Your task to perform on an android device: What's the weather today? Image 0: 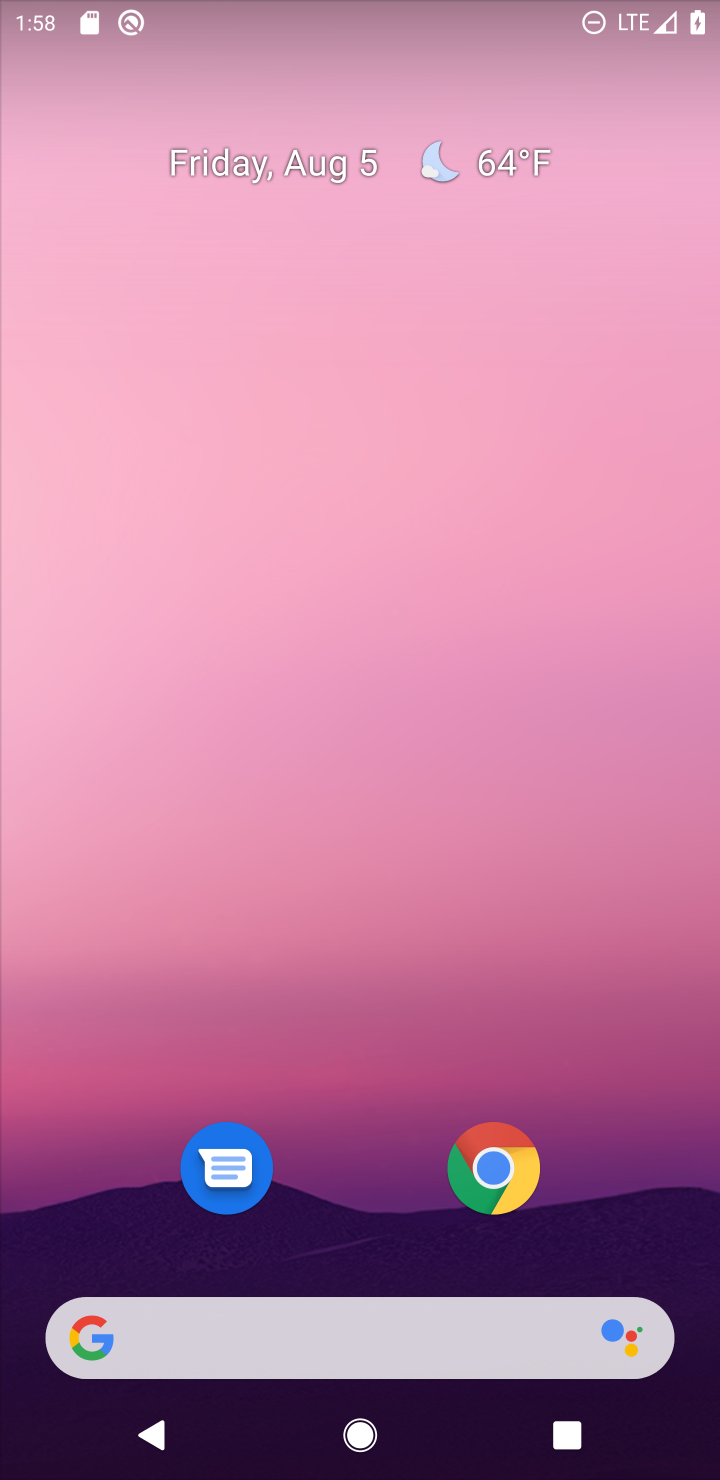
Step 0: drag from (589, 853) to (239, 24)
Your task to perform on an android device: What's the weather today? Image 1: 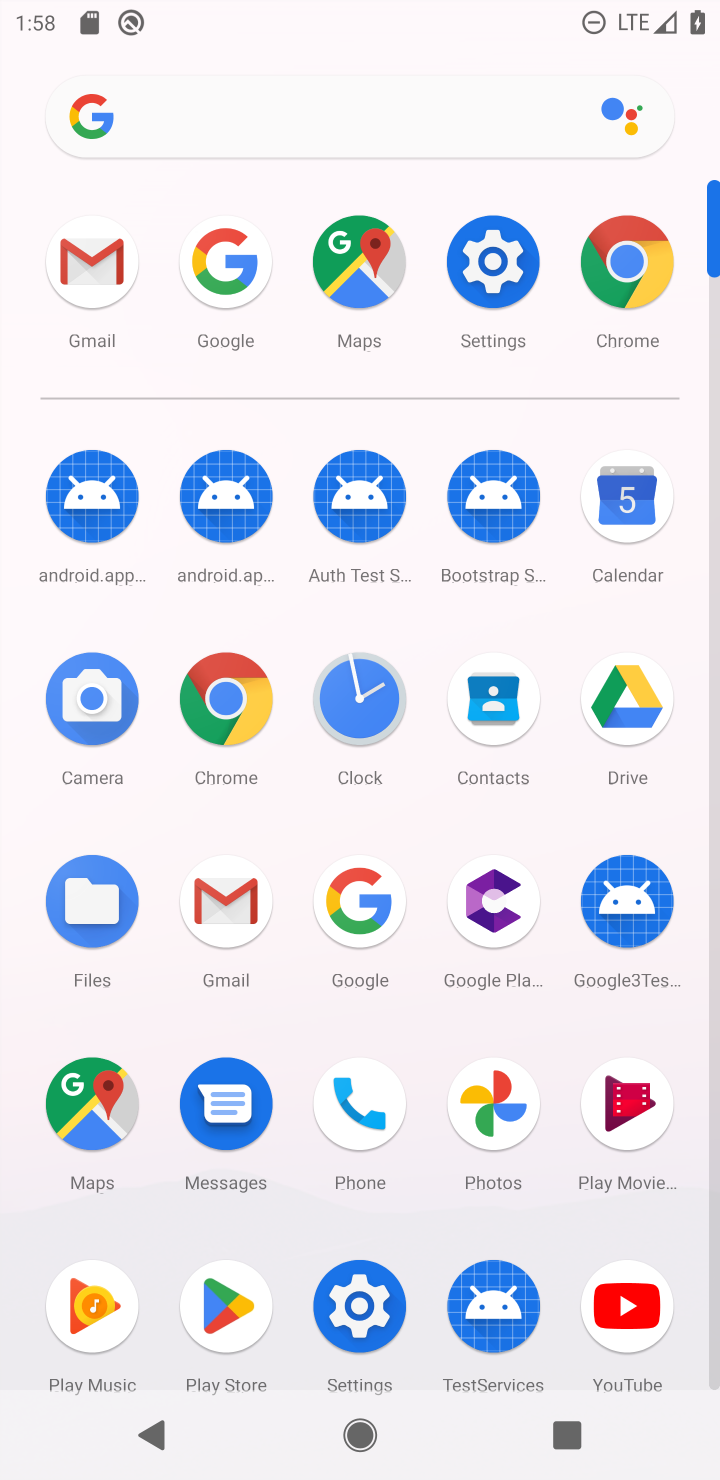
Step 1: click (343, 932)
Your task to perform on an android device: What's the weather today? Image 2: 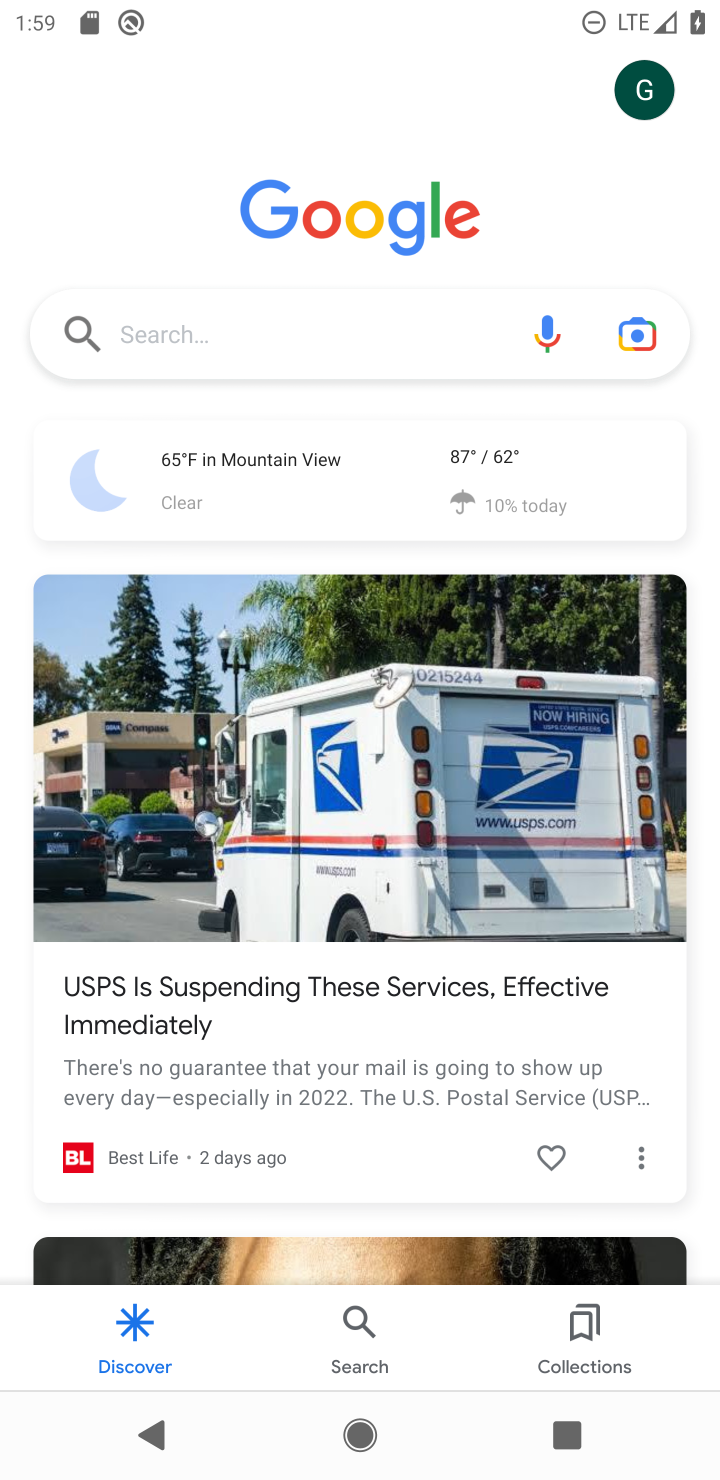
Step 2: click (190, 350)
Your task to perform on an android device: What's the weather today? Image 3: 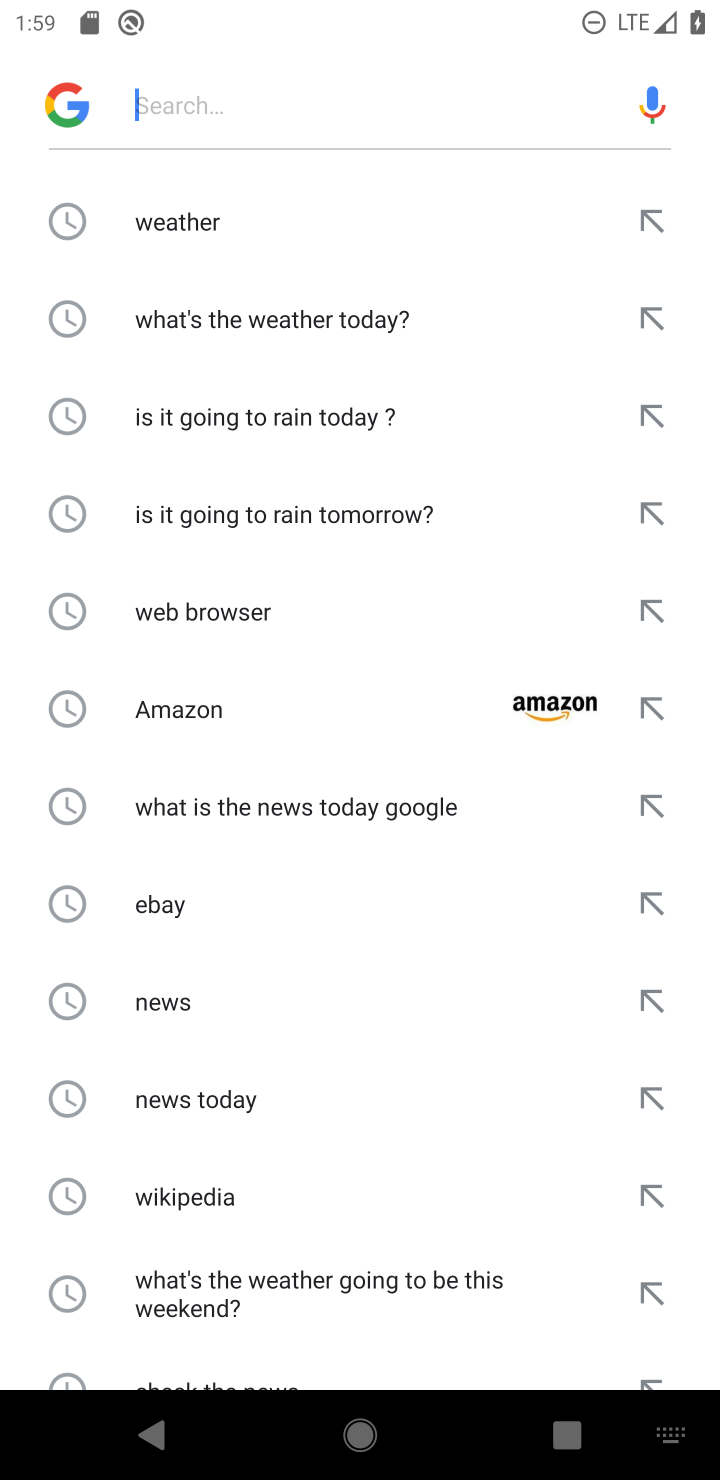
Step 3: click (277, 347)
Your task to perform on an android device: What's the weather today? Image 4: 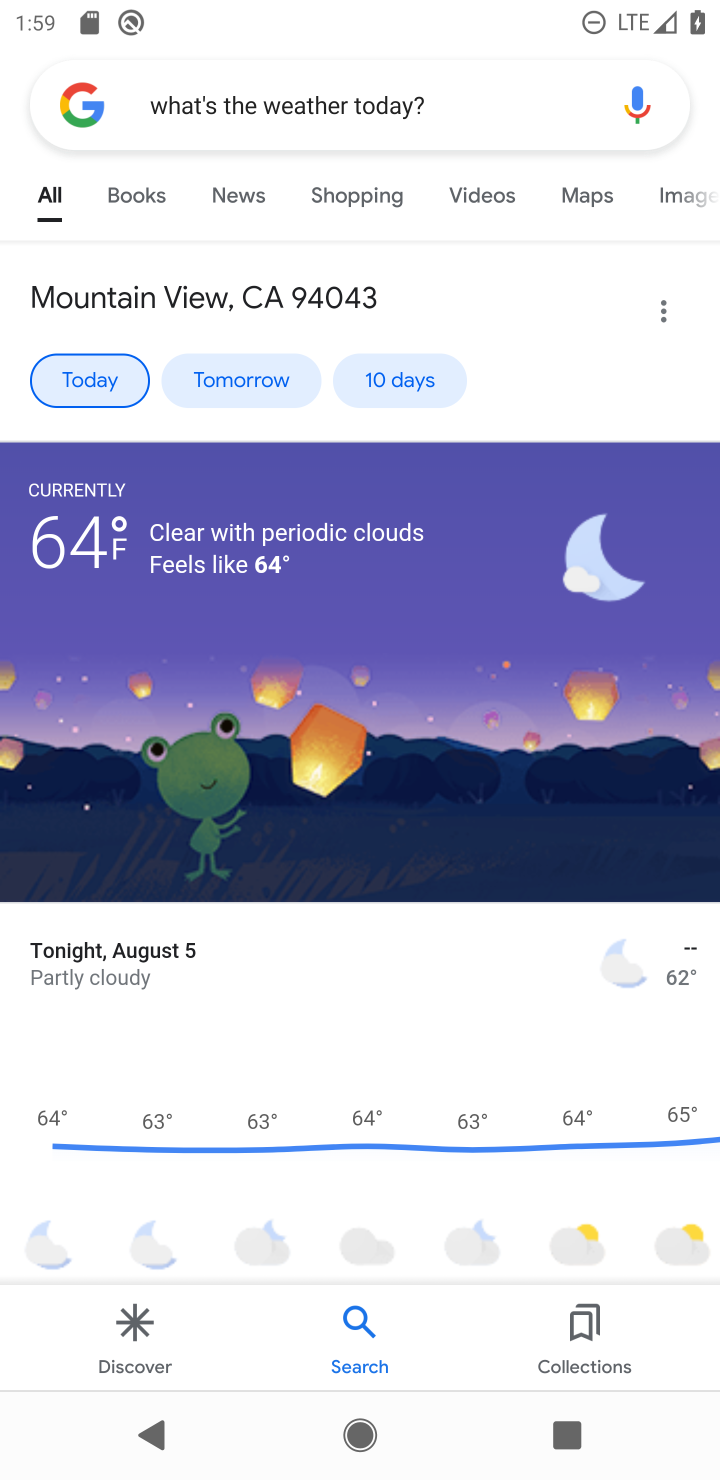
Step 4: task complete